Your task to perform on an android device: Open maps Image 0: 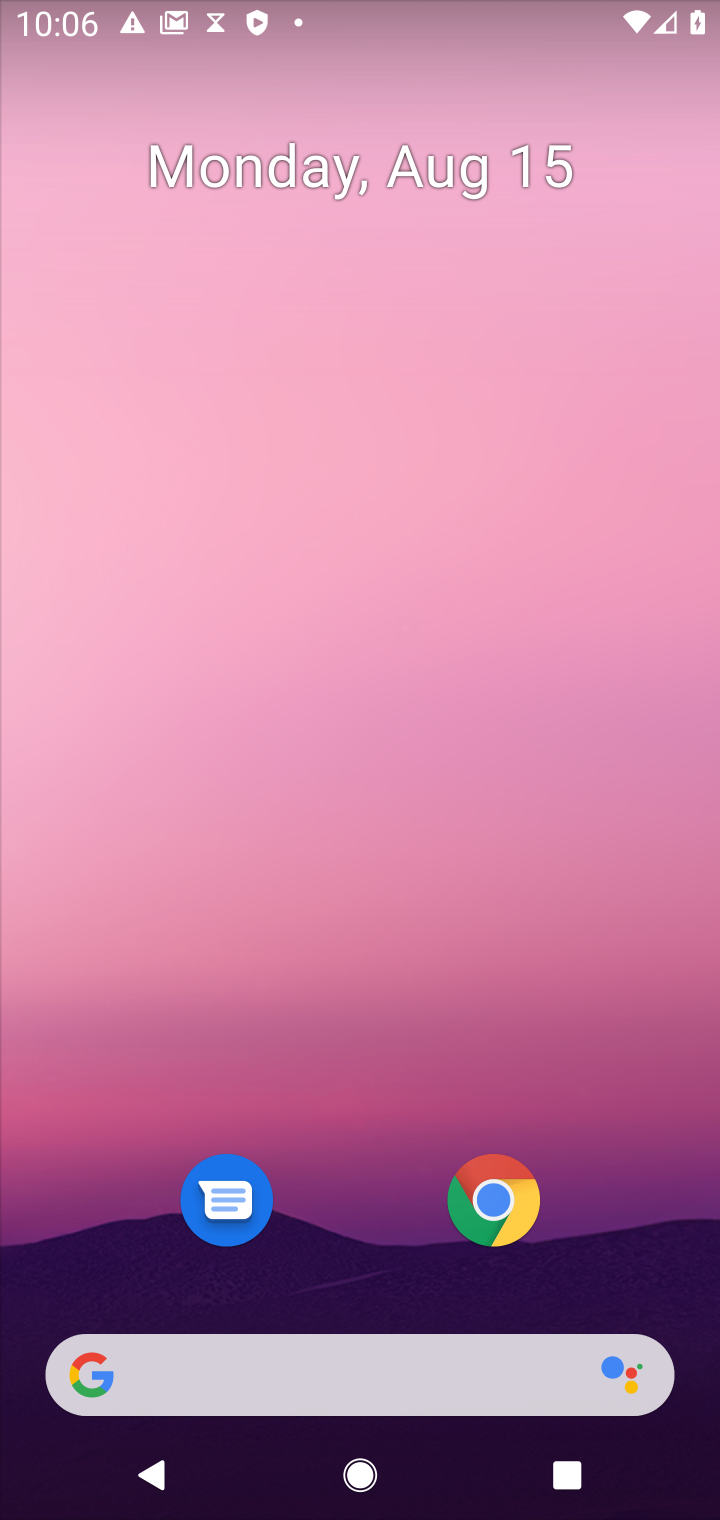
Step 0: drag from (375, 1172) to (375, 394)
Your task to perform on an android device: Open maps Image 1: 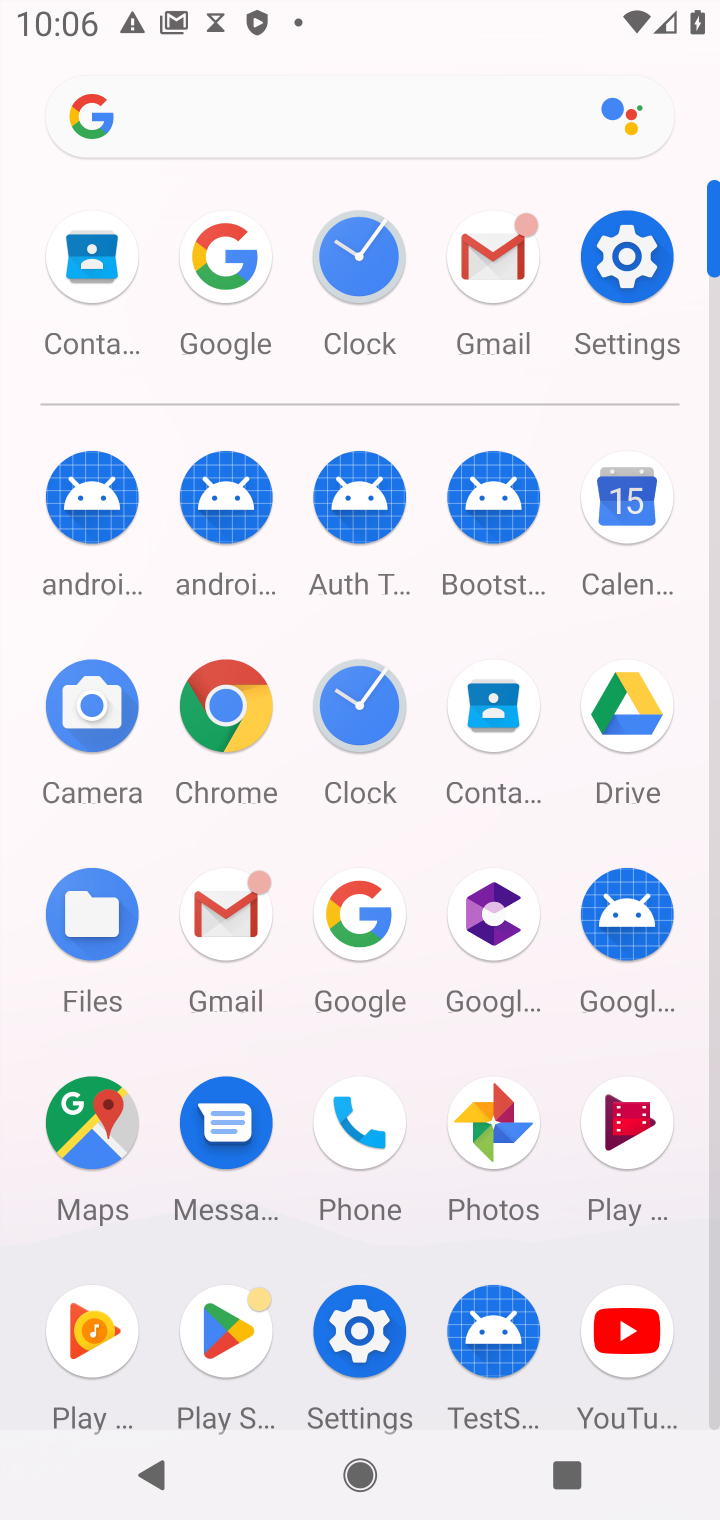
Step 1: click (101, 1125)
Your task to perform on an android device: Open maps Image 2: 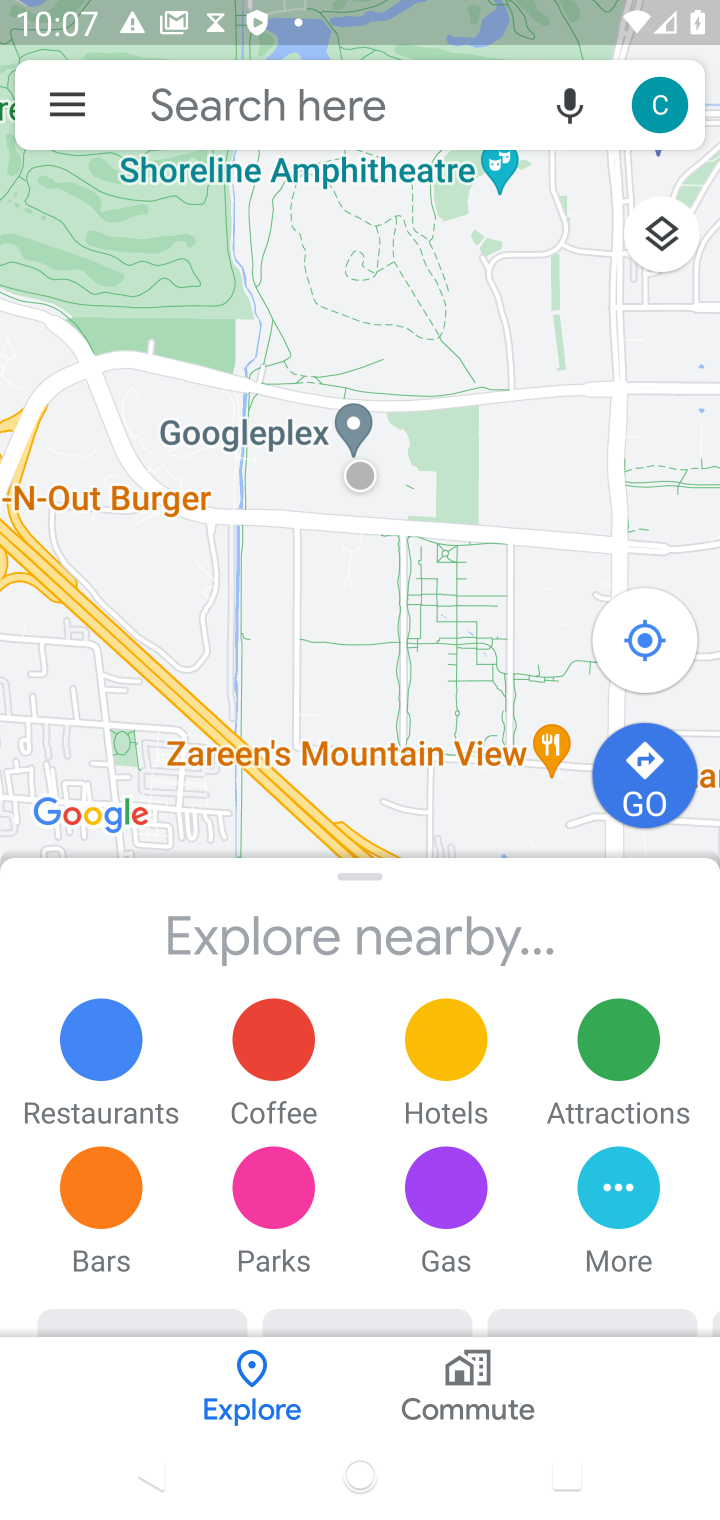
Step 2: task complete